Your task to perform on an android device: Open Google Maps Image 0: 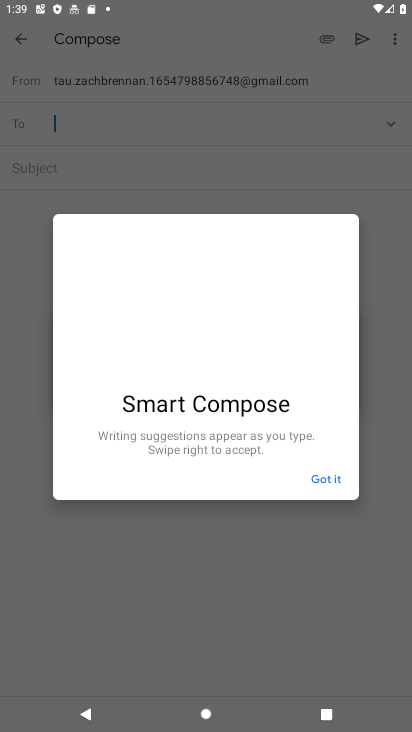
Step 0: press home button
Your task to perform on an android device: Open Google Maps Image 1: 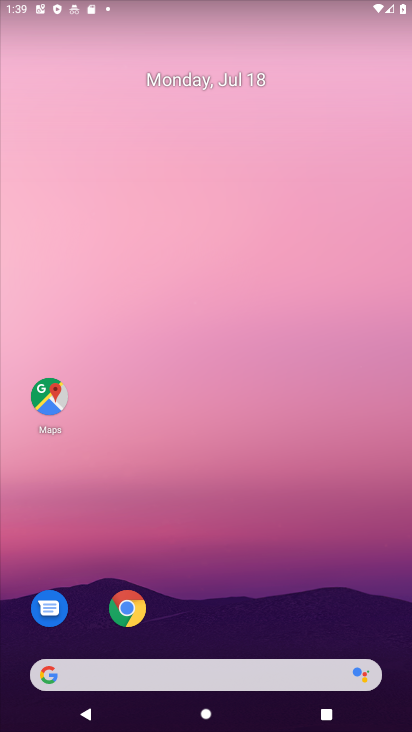
Step 1: drag from (266, 652) to (376, 19)
Your task to perform on an android device: Open Google Maps Image 2: 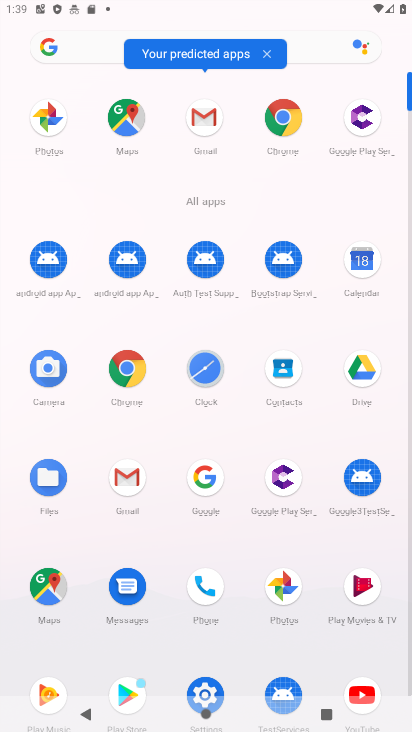
Step 2: click (39, 572)
Your task to perform on an android device: Open Google Maps Image 3: 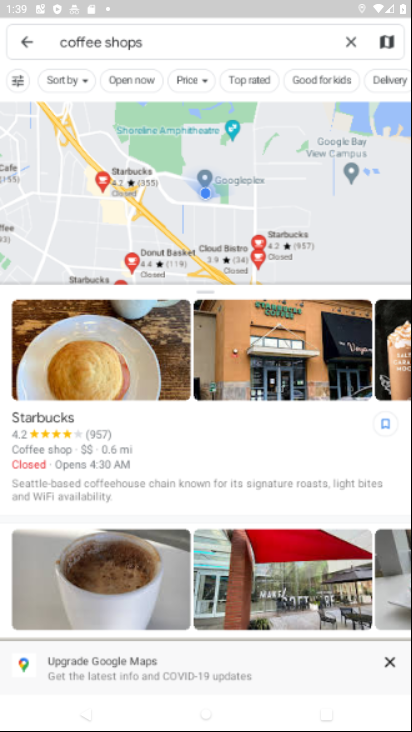
Step 3: task complete